Your task to perform on an android device: What is the recent news? Image 0: 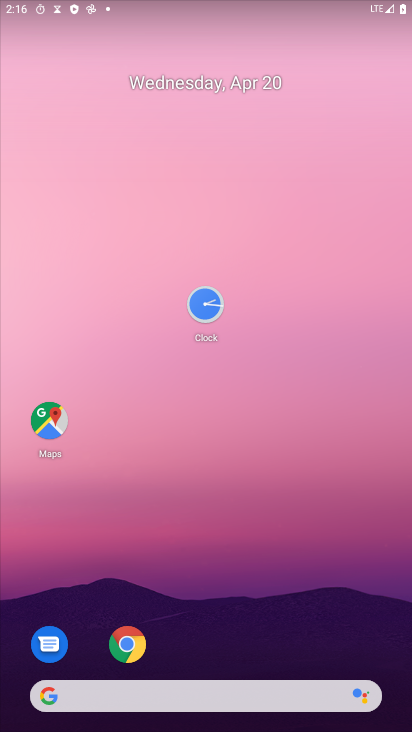
Step 0: drag from (359, 685) to (381, 143)
Your task to perform on an android device: What is the recent news? Image 1: 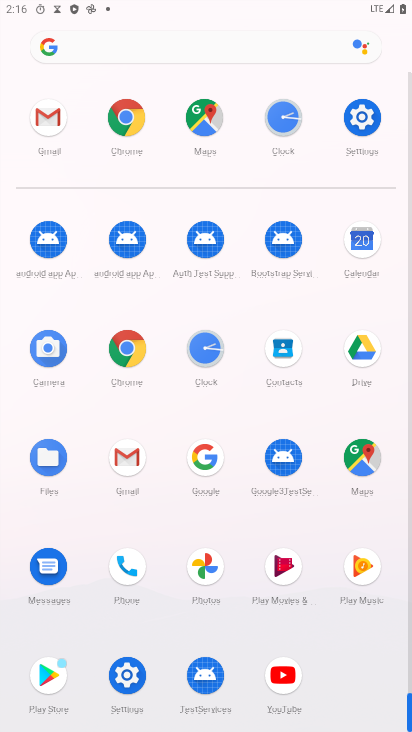
Step 1: click (134, 338)
Your task to perform on an android device: What is the recent news? Image 2: 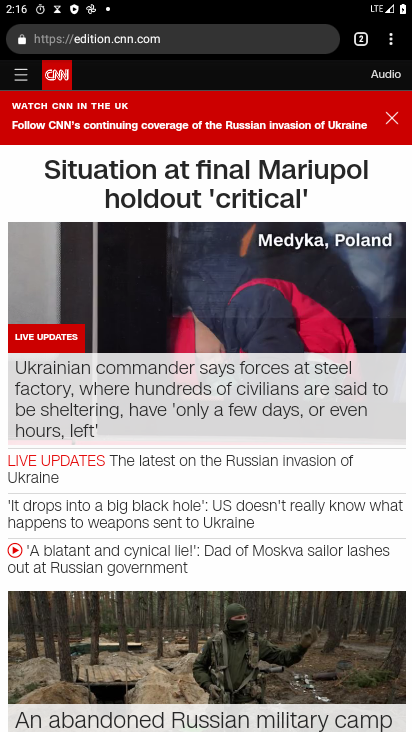
Step 2: click (282, 40)
Your task to perform on an android device: What is the recent news? Image 3: 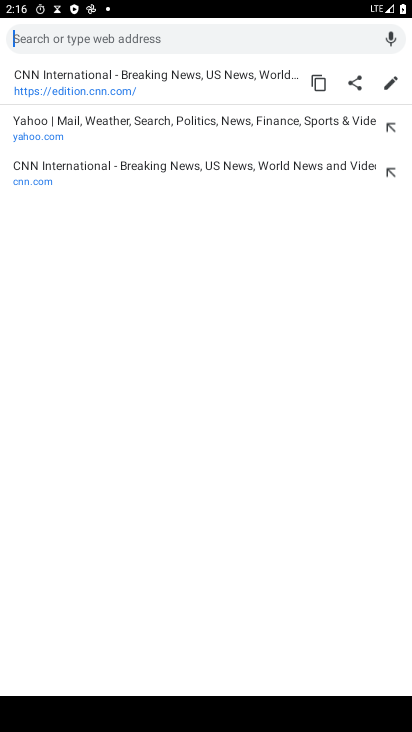
Step 3: type "recent news"
Your task to perform on an android device: What is the recent news? Image 4: 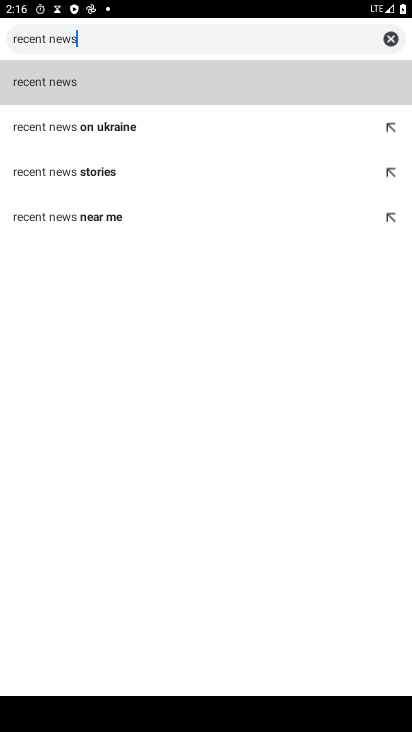
Step 4: click (165, 77)
Your task to perform on an android device: What is the recent news? Image 5: 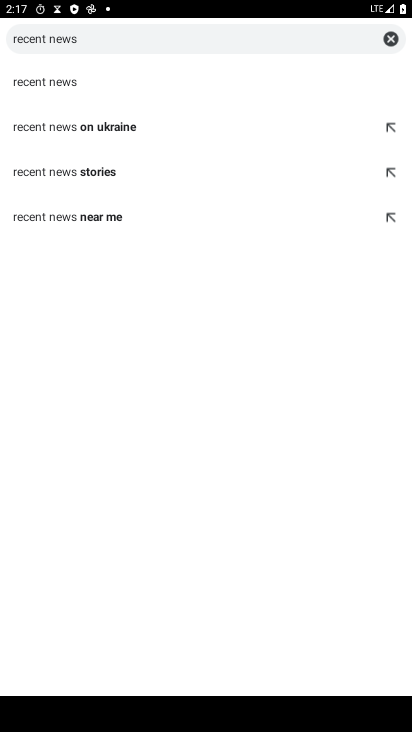
Step 5: click (200, 82)
Your task to perform on an android device: What is the recent news? Image 6: 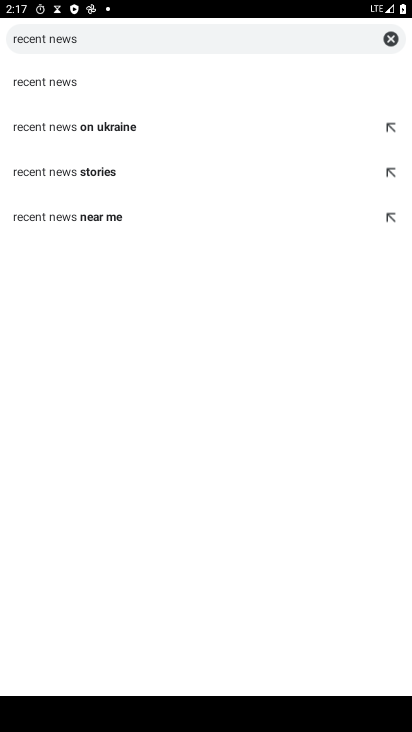
Step 6: click (200, 88)
Your task to perform on an android device: What is the recent news? Image 7: 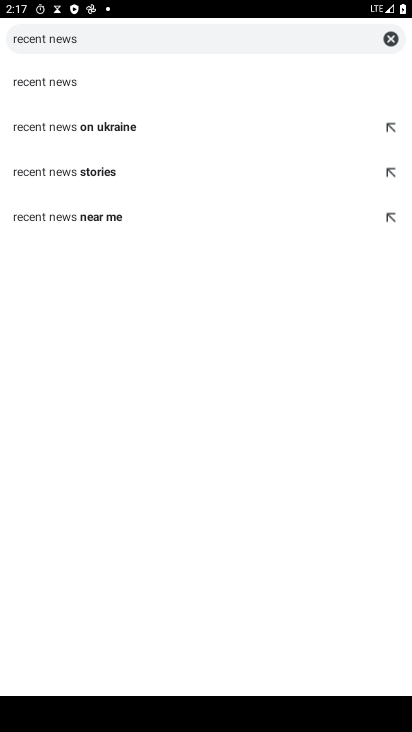
Step 7: click (86, 86)
Your task to perform on an android device: What is the recent news? Image 8: 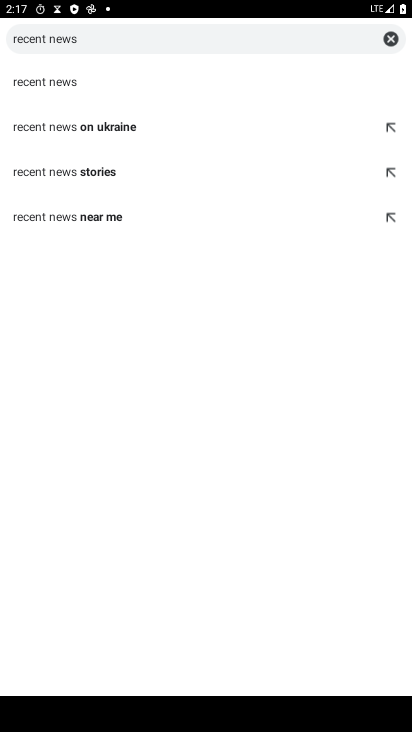
Step 8: click (87, 172)
Your task to perform on an android device: What is the recent news? Image 9: 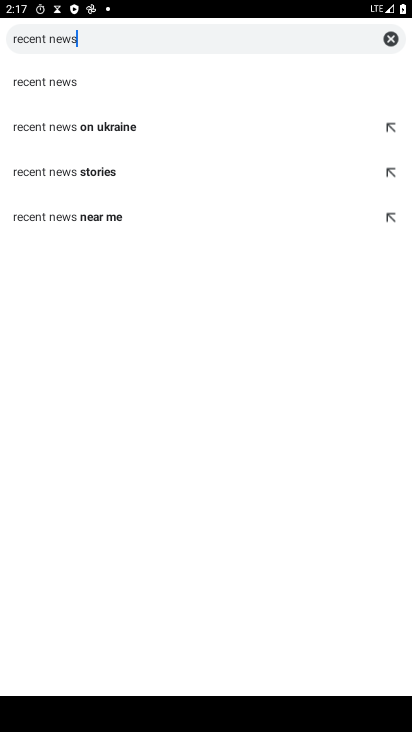
Step 9: click (397, 37)
Your task to perform on an android device: What is the recent news? Image 10: 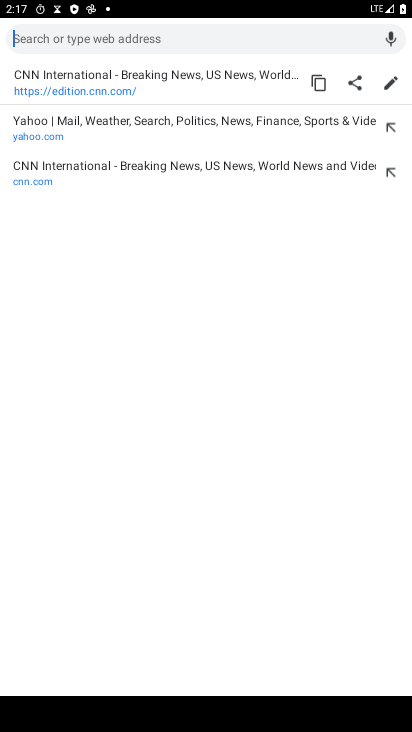
Step 10: type "recent news"
Your task to perform on an android device: What is the recent news? Image 11: 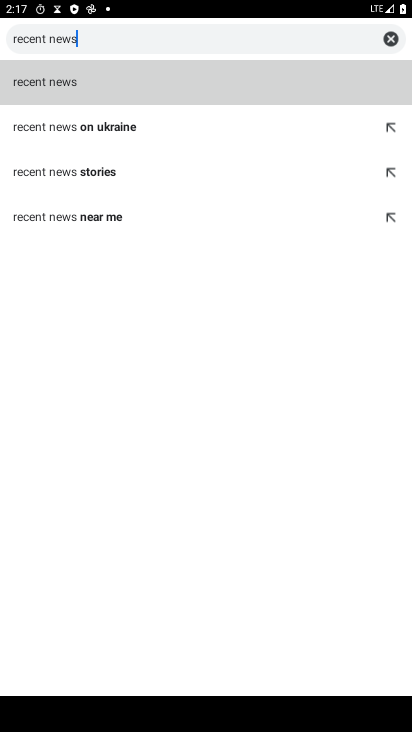
Step 11: click (114, 91)
Your task to perform on an android device: What is the recent news? Image 12: 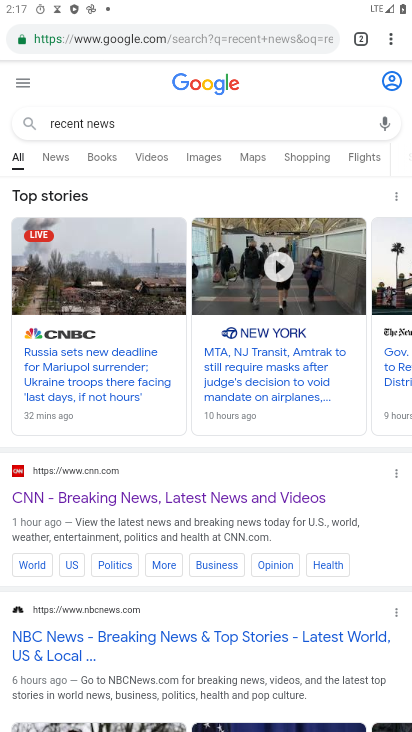
Step 12: task complete